Your task to perform on an android device: check google app version Image 0: 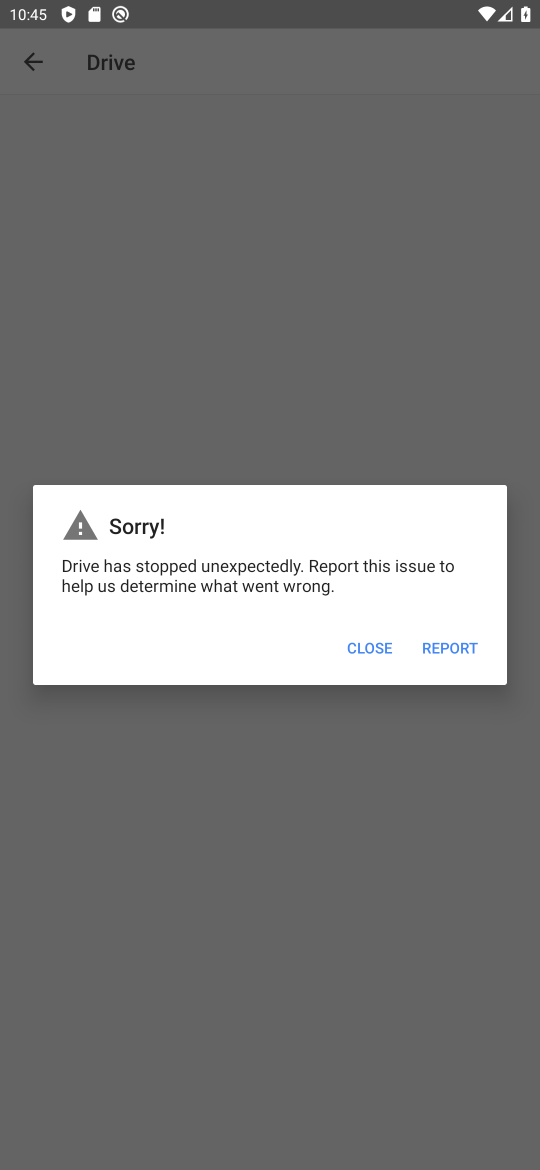
Step 0: press home button
Your task to perform on an android device: check google app version Image 1: 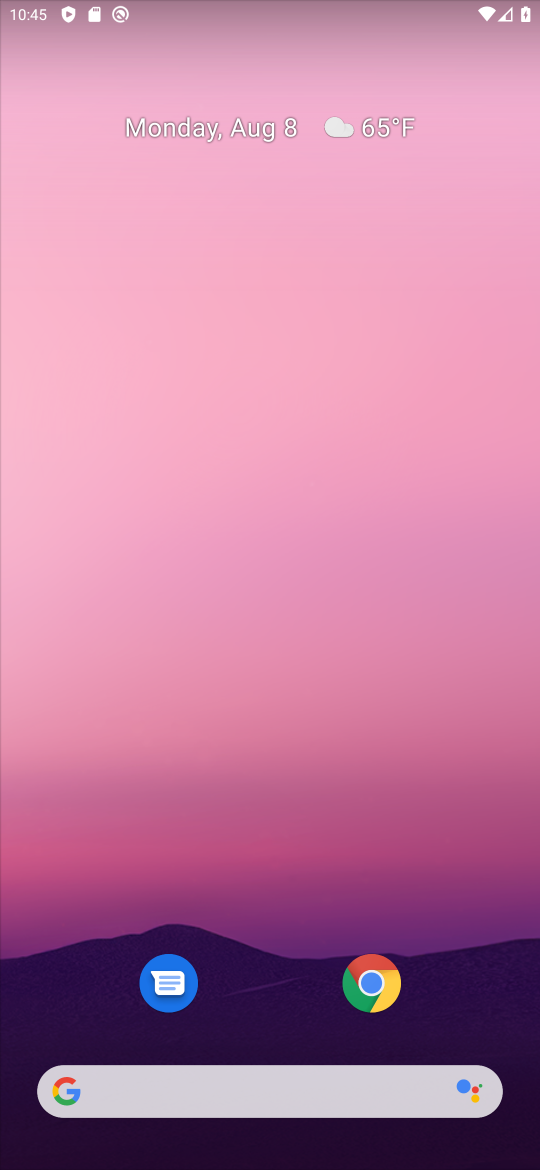
Step 1: task complete